Your task to perform on an android device: open sync settings in chrome Image 0: 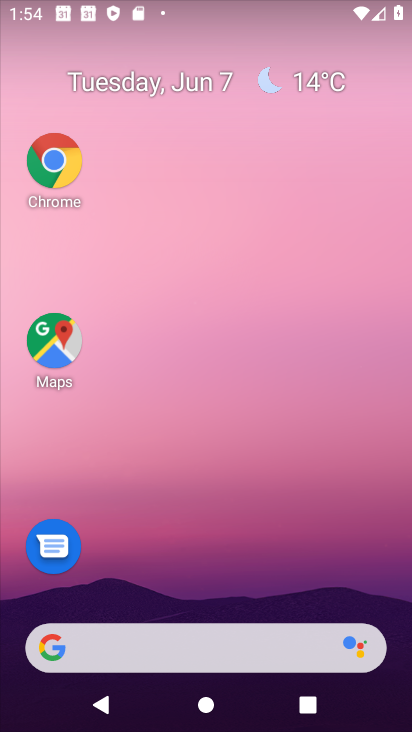
Step 0: click (254, 73)
Your task to perform on an android device: open sync settings in chrome Image 1: 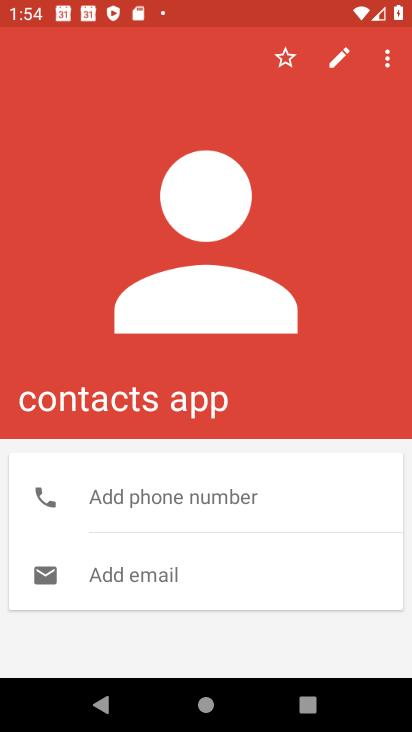
Step 1: press home button
Your task to perform on an android device: open sync settings in chrome Image 2: 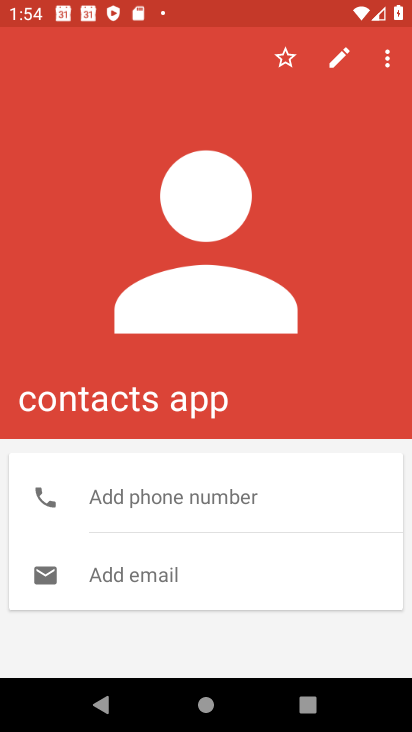
Step 2: drag from (256, 345) to (332, 0)
Your task to perform on an android device: open sync settings in chrome Image 3: 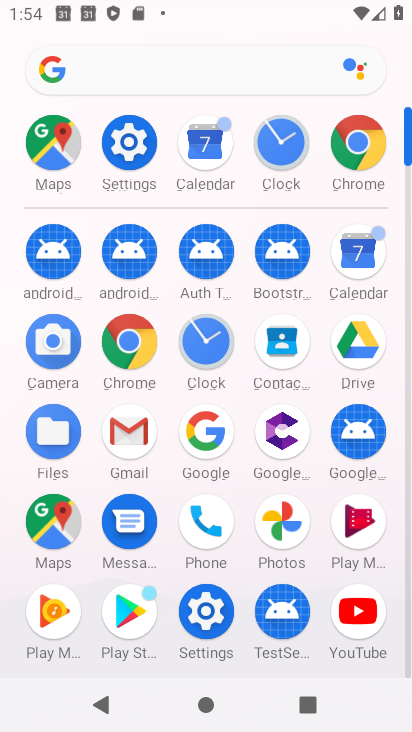
Step 3: click (345, 139)
Your task to perform on an android device: open sync settings in chrome Image 4: 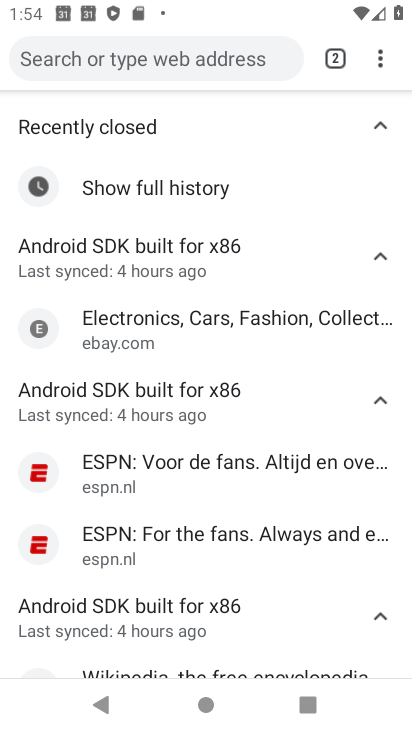
Step 4: drag from (377, 65) to (261, 500)
Your task to perform on an android device: open sync settings in chrome Image 5: 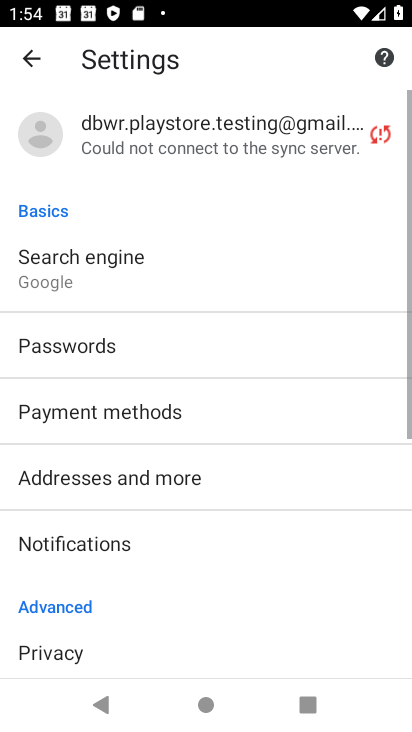
Step 5: drag from (241, 548) to (360, 46)
Your task to perform on an android device: open sync settings in chrome Image 6: 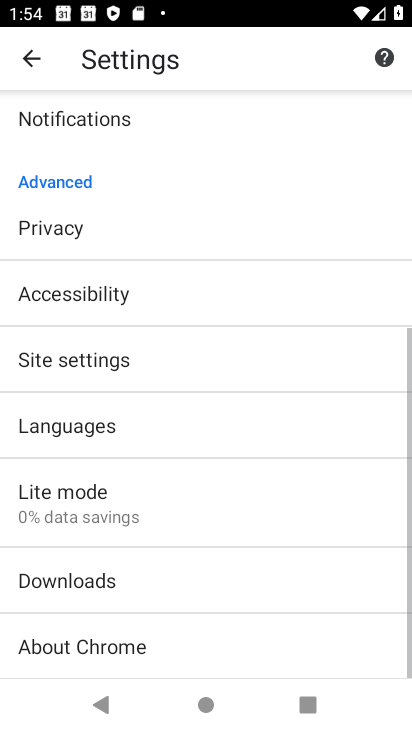
Step 6: click (197, 353)
Your task to perform on an android device: open sync settings in chrome Image 7: 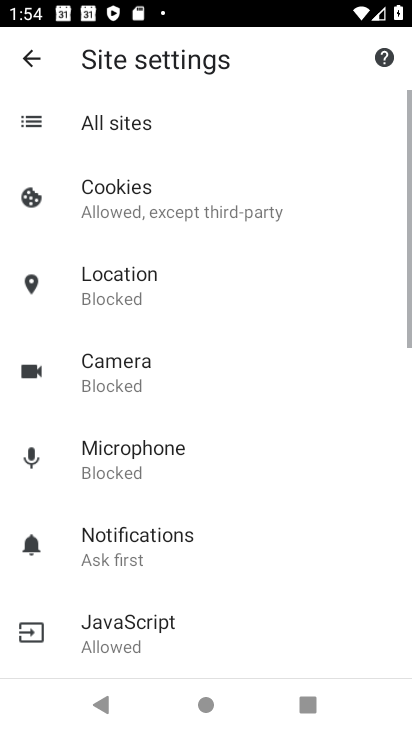
Step 7: drag from (211, 479) to (326, 86)
Your task to perform on an android device: open sync settings in chrome Image 8: 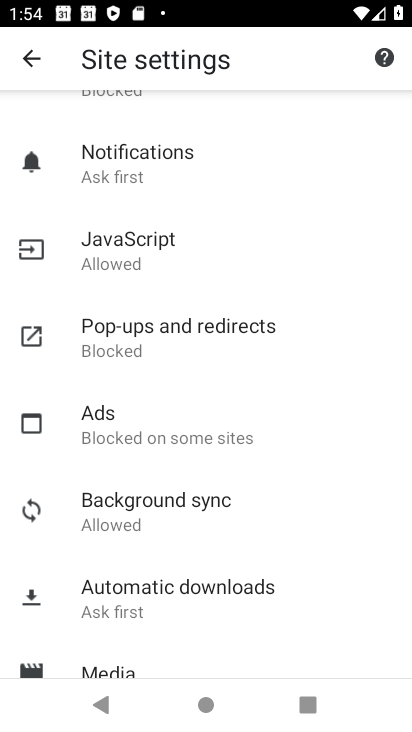
Step 8: click (195, 512)
Your task to perform on an android device: open sync settings in chrome Image 9: 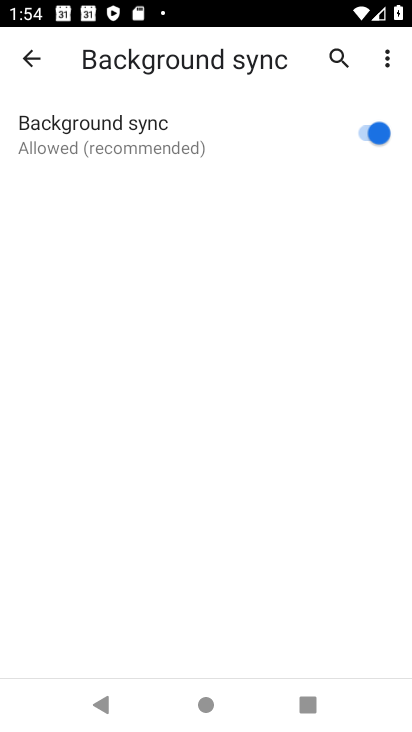
Step 9: task complete